Your task to perform on an android device: Go to sound settings Image 0: 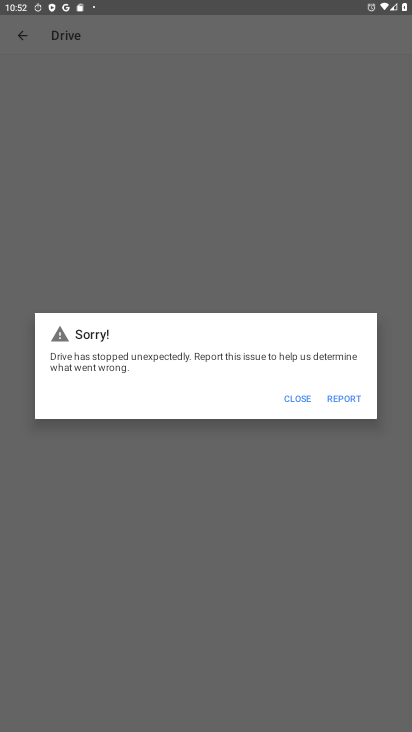
Step 0: press home button
Your task to perform on an android device: Go to sound settings Image 1: 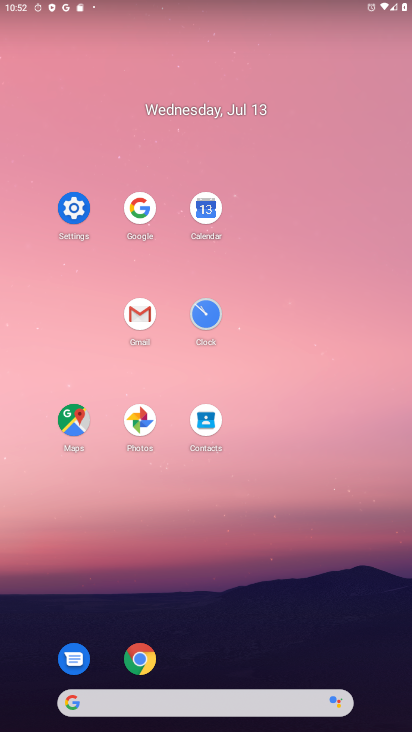
Step 1: click (75, 199)
Your task to perform on an android device: Go to sound settings Image 2: 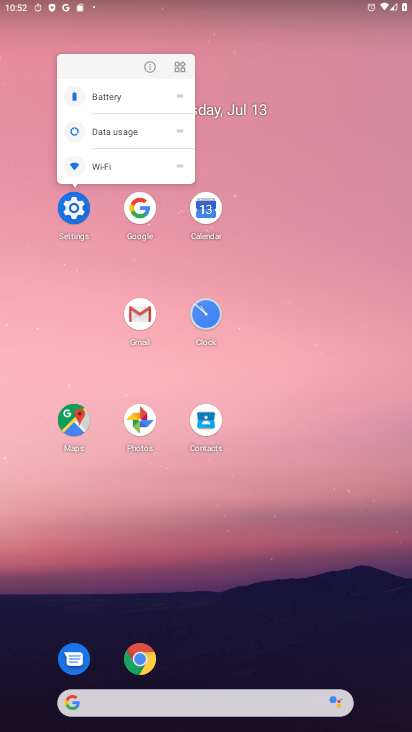
Step 2: click (74, 225)
Your task to perform on an android device: Go to sound settings Image 3: 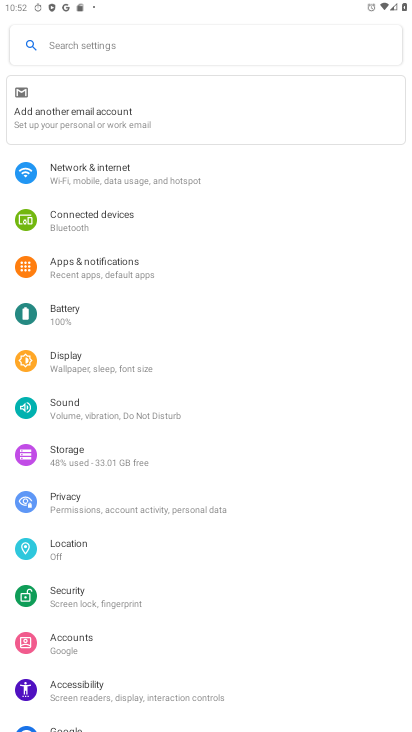
Step 3: click (175, 406)
Your task to perform on an android device: Go to sound settings Image 4: 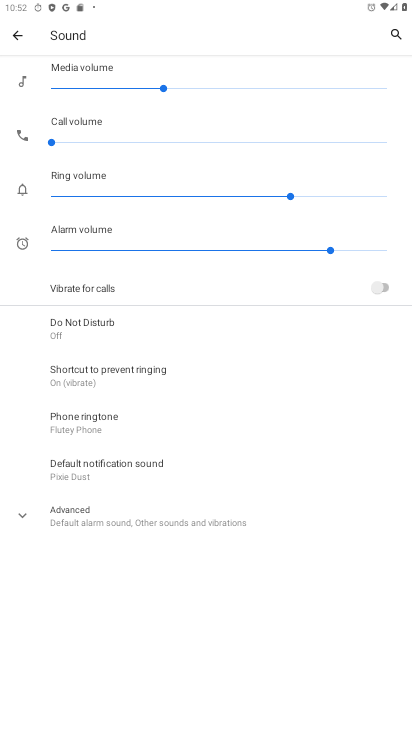
Step 4: task complete